Your task to perform on an android device: Open Amazon Image 0: 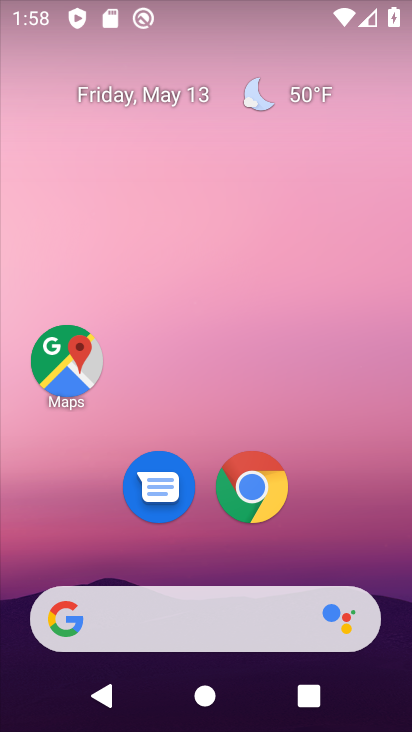
Step 0: click (263, 497)
Your task to perform on an android device: Open Amazon Image 1: 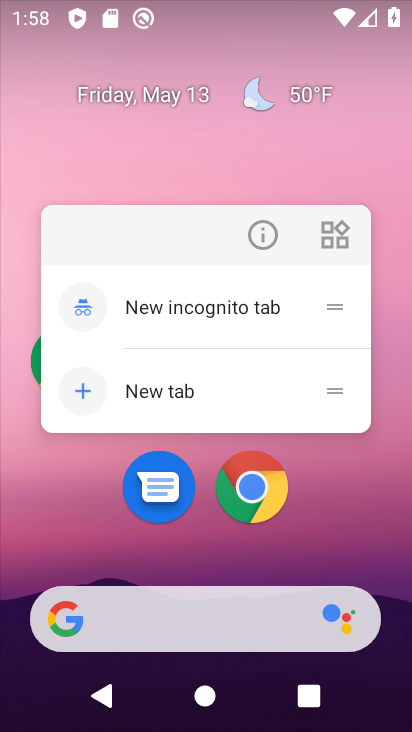
Step 1: click (259, 492)
Your task to perform on an android device: Open Amazon Image 2: 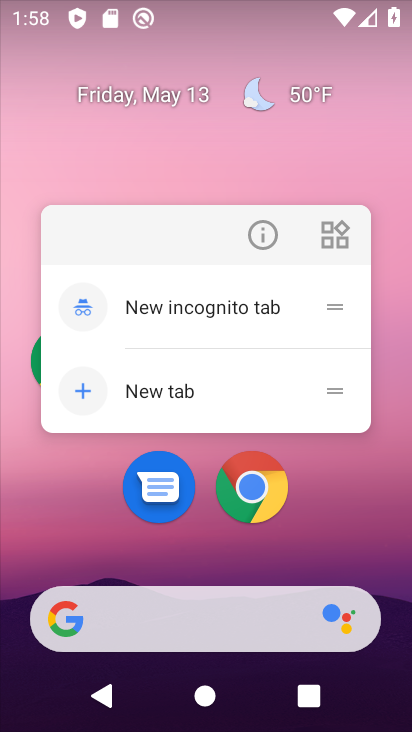
Step 2: click (258, 490)
Your task to perform on an android device: Open Amazon Image 3: 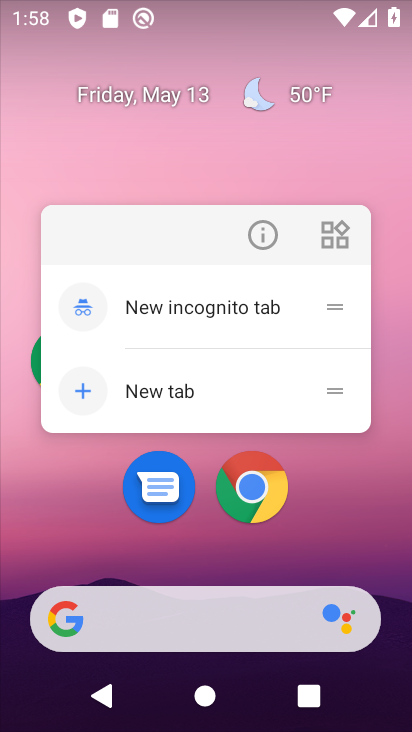
Step 3: click (243, 495)
Your task to perform on an android device: Open Amazon Image 4: 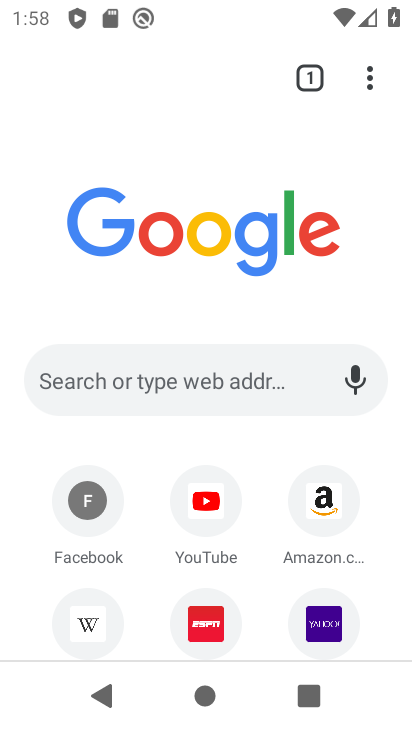
Step 4: click (334, 511)
Your task to perform on an android device: Open Amazon Image 5: 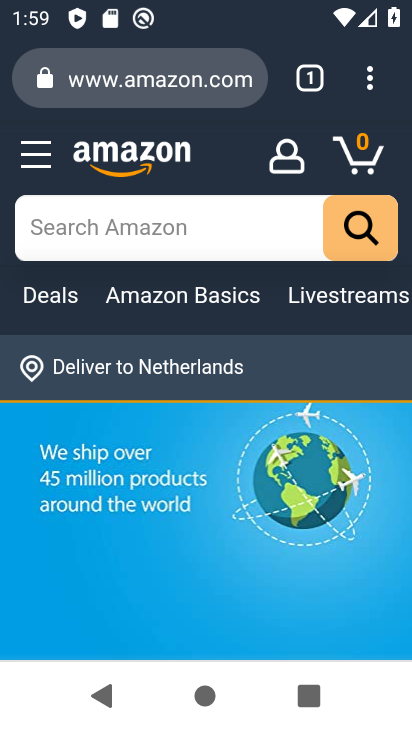
Step 5: task complete